Your task to perform on an android device: turn off improve location accuracy Image 0: 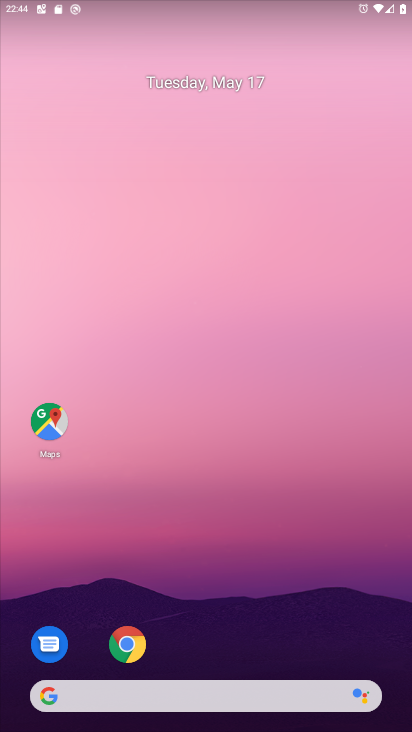
Step 0: drag from (202, 661) to (198, 102)
Your task to perform on an android device: turn off improve location accuracy Image 1: 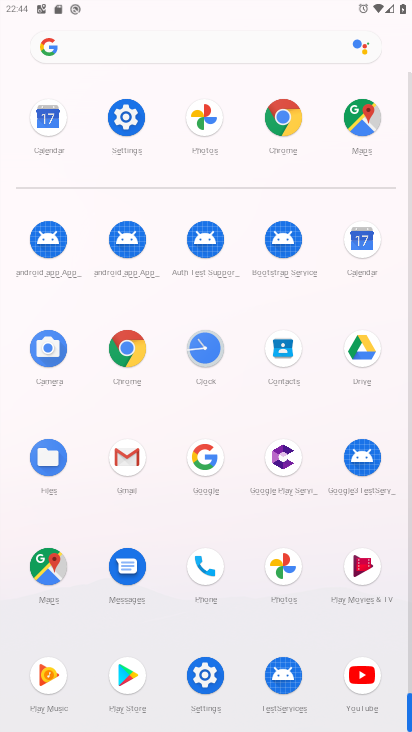
Step 1: click (126, 112)
Your task to perform on an android device: turn off improve location accuracy Image 2: 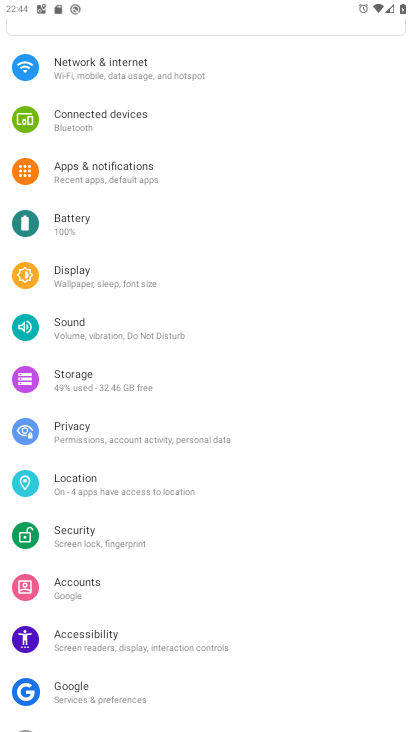
Step 2: click (111, 473)
Your task to perform on an android device: turn off improve location accuracy Image 3: 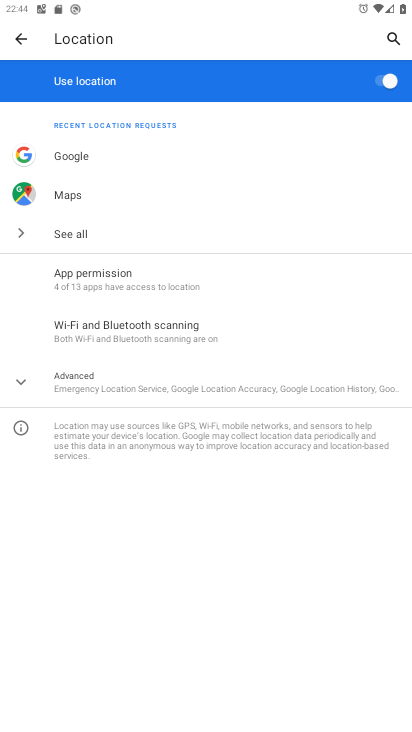
Step 3: click (28, 380)
Your task to perform on an android device: turn off improve location accuracy Image 4: 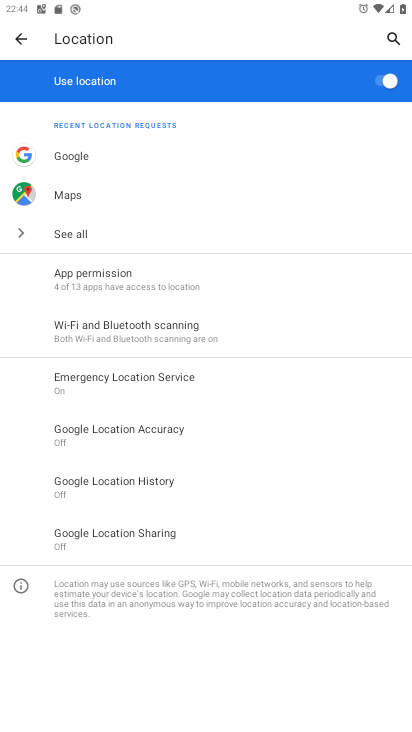
Step 4: click (90, 432)
Your task to perform on an android device: turn off improve location accuracy Image 5: 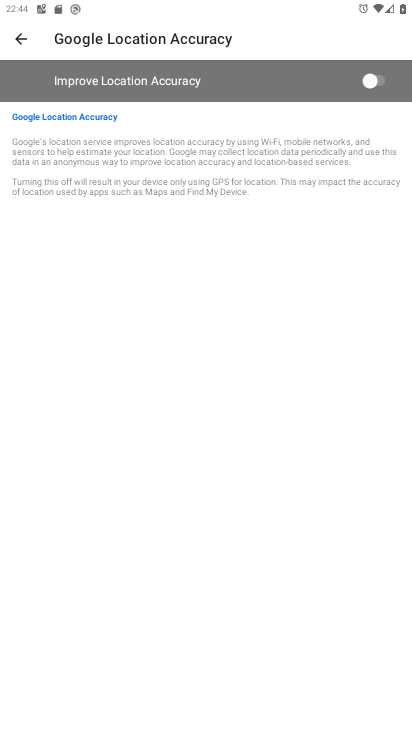
Step 5: task complete